Your task to perform on an android device: Add acer nitro to the cart on bestbuy.com, then select checkout. Image 0: 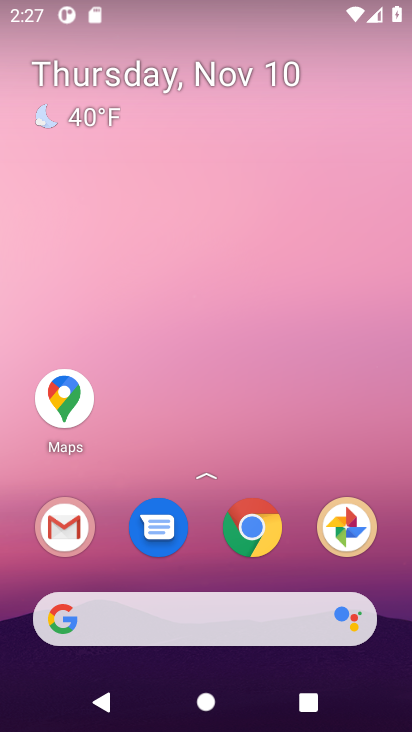
Step 0: drag from (146, 572) to (196, 92)
Your task to perform on an android device: Add acer nitro to the cart on bestbuy.com, then select checkout. Image 1: 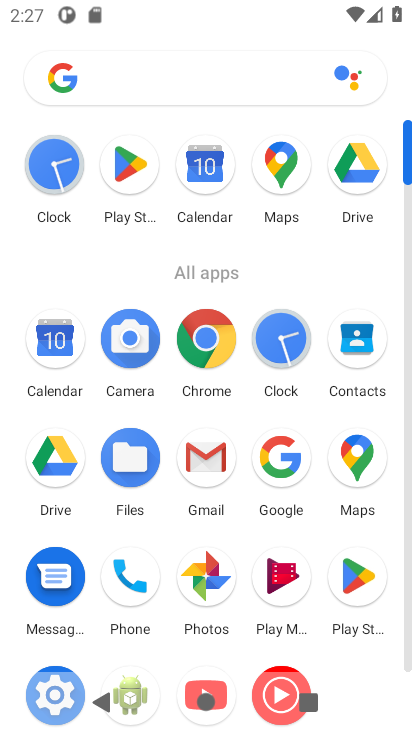
Step 1: click (208, 353)
Your task to perform on an android device: Add acer nitro to the cart on bestbuy.com, then select checkout. Image 2: 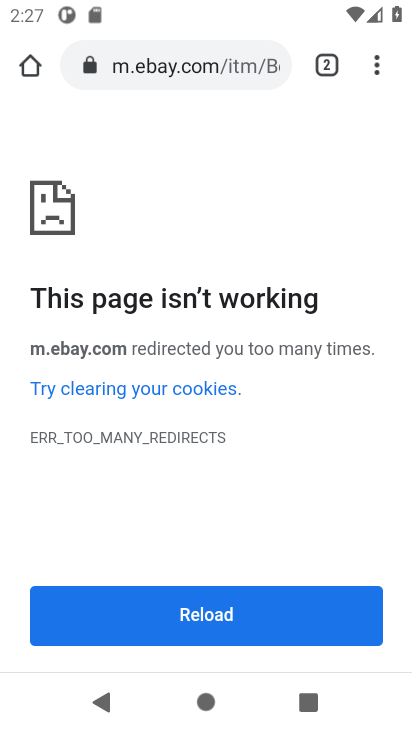
Step 2: click (158, 71)
Your task to perform on an android device: Add acer nitro to the cart on bestbuy.com, then select checkout. Image 3: 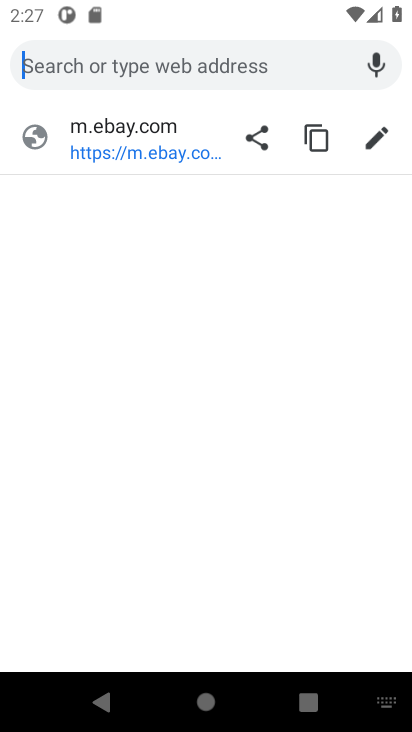
Step 3: type "bestbuy.com"
Your task to perform on an android device: Add acer nitro to the cart on bestbuy.com, then select checkout. Image 4: 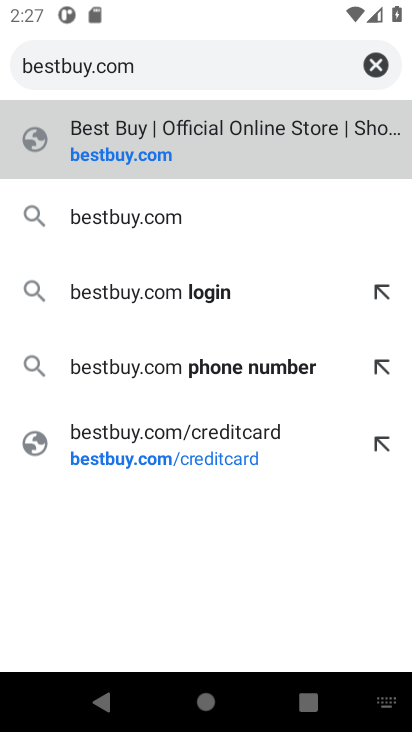
Step 4: press enter
Your task to perform on an android device: Add acer nitro to the cart on bestbuy.com, then select checkout. Image 5: 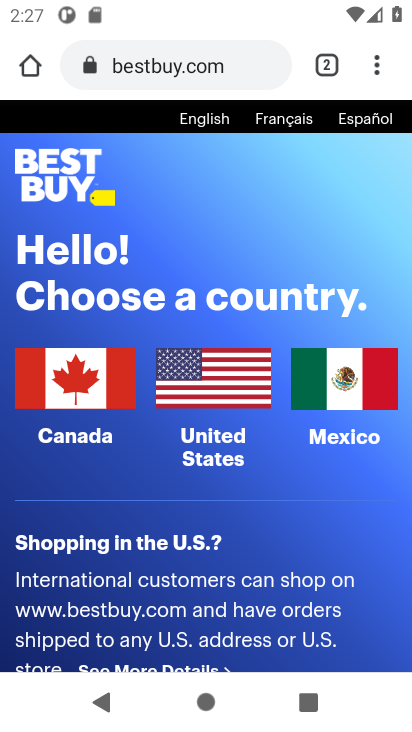
Step 5: click (67, 388)
Your task to perform on an android device: Add acer nitro to the cart on bestbuy.com, then select checkout. Image 6: 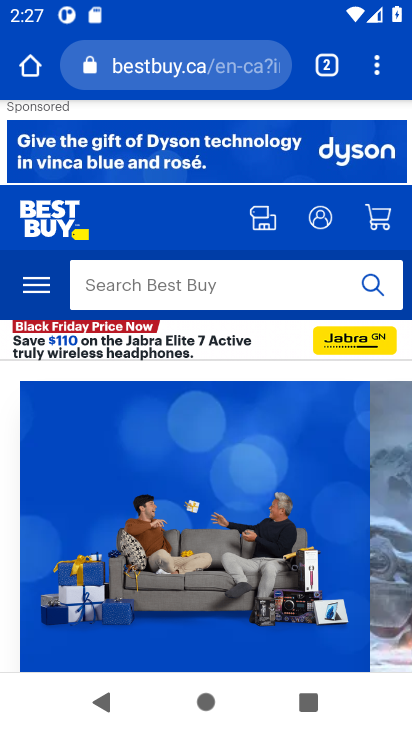
Step 6: click (205, 287)
Your task to perform on an android device: Add acer nitro to the cart on bestbuy.com, then select checkout. Image 7: 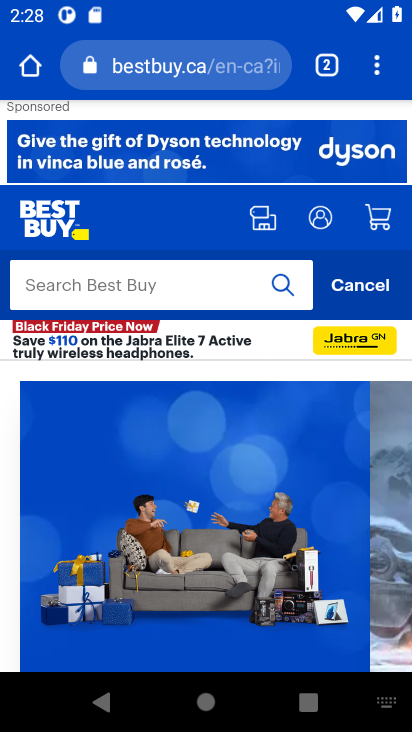
Step 7: type "bestbuy.com"
Your task to perform on an android device: Add acer nitro to the cart on bestbuy.com, then select checkout. Image 8: 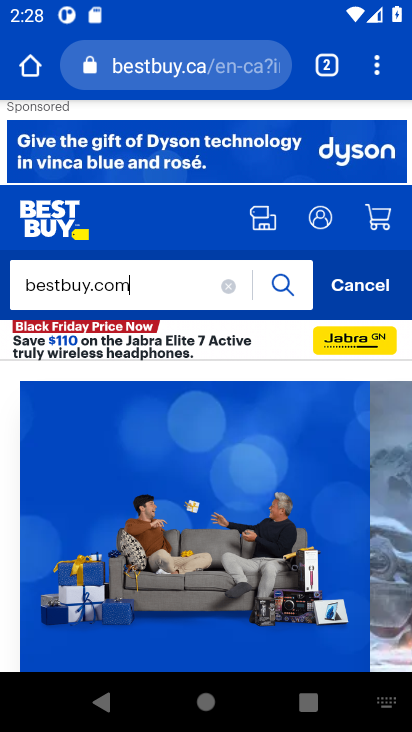
Step 8: press enter
Your task to perform on an android device: Add acer nitro to the cart on bestbuy.com, then select checkout. Image 9: 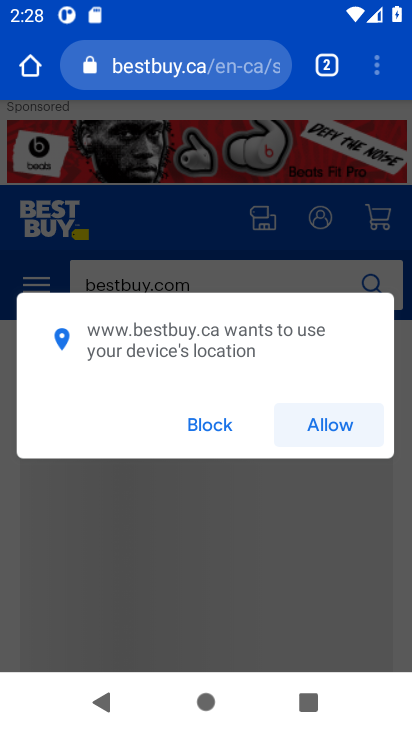
Step 9: click (334, 429)
Your task to perform on an android device: Add acer nitro to the cart on bestbuy.com, then select checkout. Image 10: 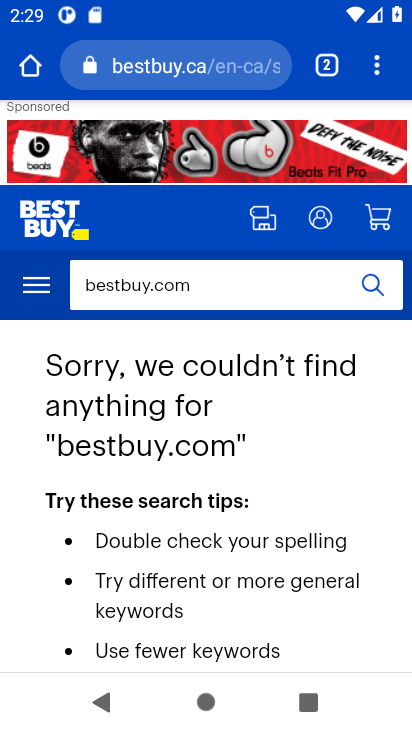
Step 10: click (215, 290)
Your task to perform on an android device: Add acer nitro to the cart on bestbuy.com, then select checkout. Image 11: 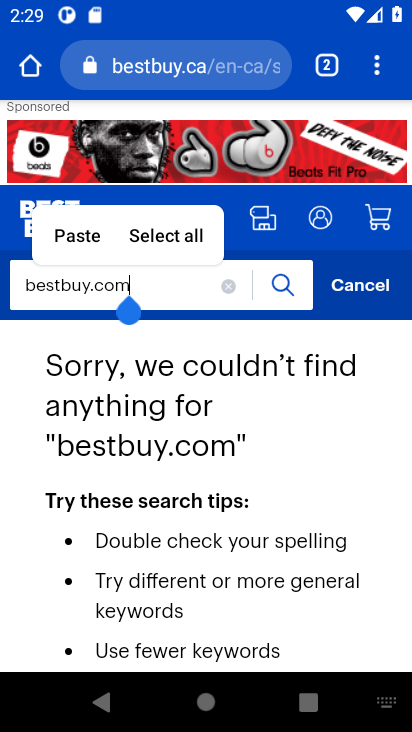
Step 11: click (230, 291)
Your task to perform on an android device: Add acer nitro to the cart on bestbuy.com, then select checkout. Image 12: 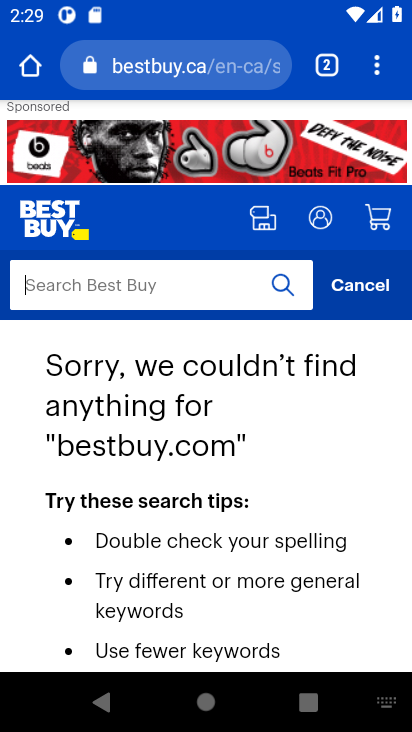
Step 12: type "acer nitro"
Your task to perform on an android device: Add acer nitro to the cart on bestbuy.com, then select checkout. Image 13: 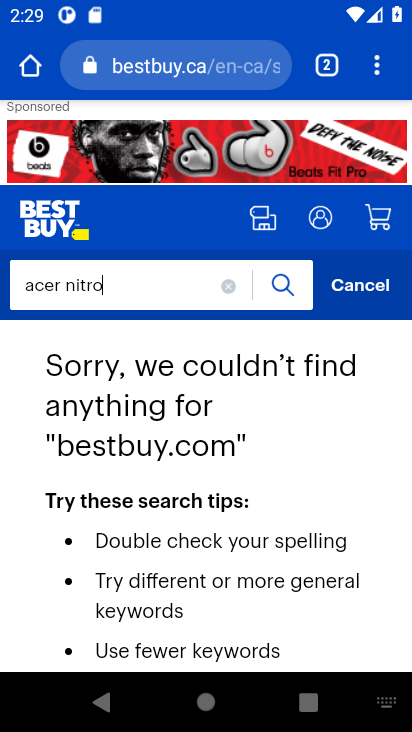
Step 13: press enter
Your task to perform on an android device: Add acer nitro to the cart on bestbuy.com, then select checkout. Image 14: 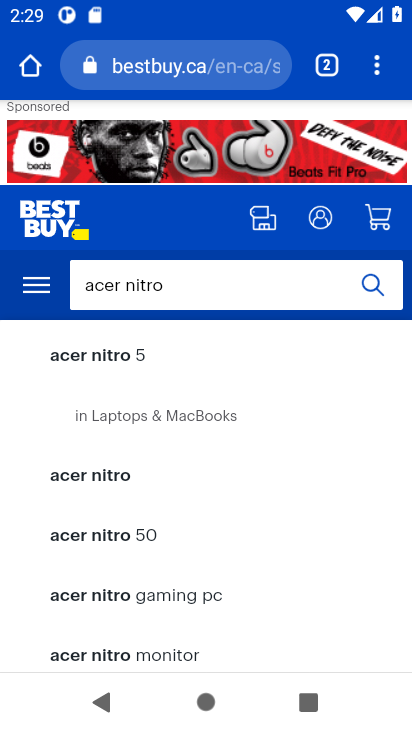
Step 14: click (124, 479)
Your task to perform on an android device: Add acer nitro to the cart on bestbuy.com, then select checkout. Image 15: 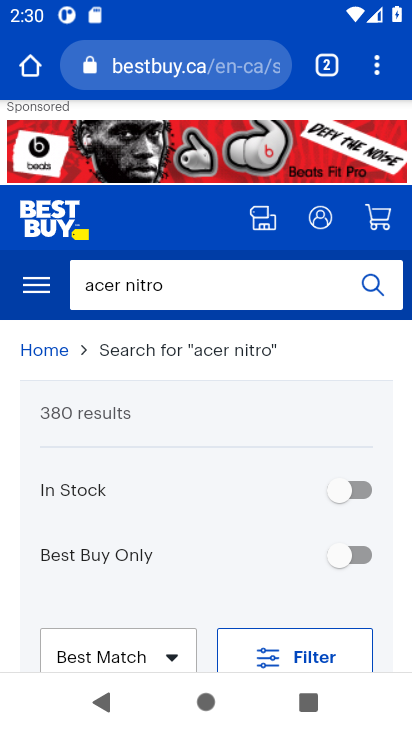
Step 15: drag from (124, 475) to (179, 175)
Your task to perform on an android device: Add acer nitro to the cart on bestbuy.com, then select checkout. Image 16: 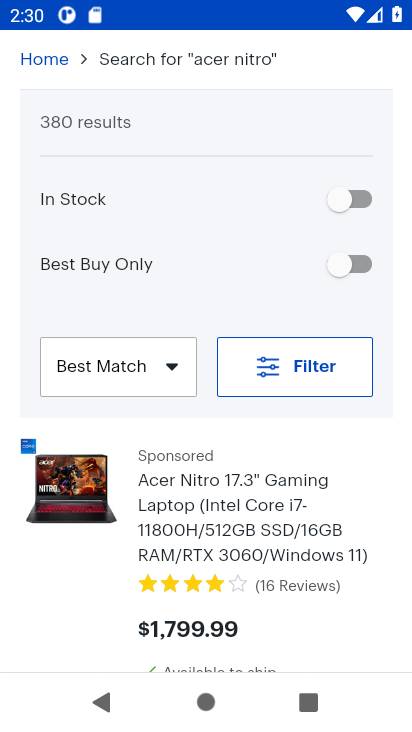
Step 16: click (220, 519)
Your task to perform on an android device: Add acer nitro to the cart on bestbuy.com, then select checkout. Image 17: 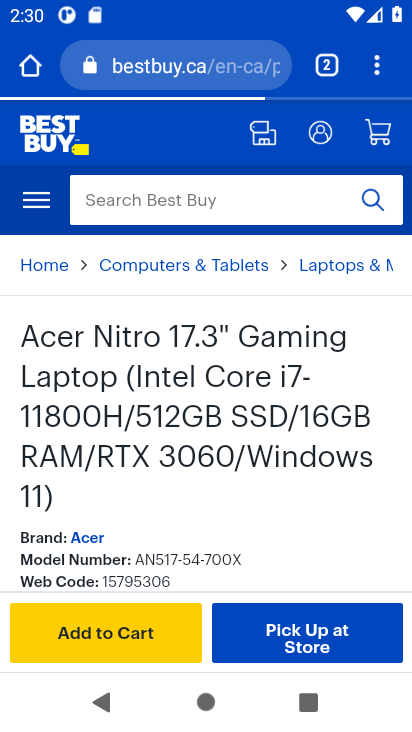
Step 17: click (124, 638)
Your task to perform on an android device: Add acer nitro to the cart on bestbuy.com, then select checkout. Image 18: 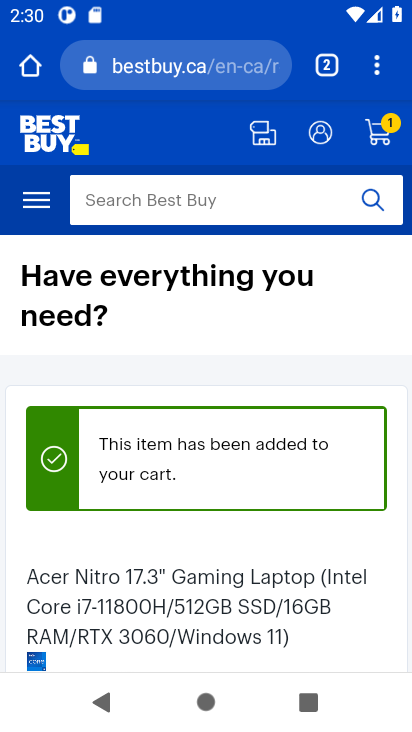
Step 18: drag from (197, 569) to (232, 312)
Your task to perform on an android device: Add acer nitro to the cart on bestbuy.com, then select checkout. Image 19: 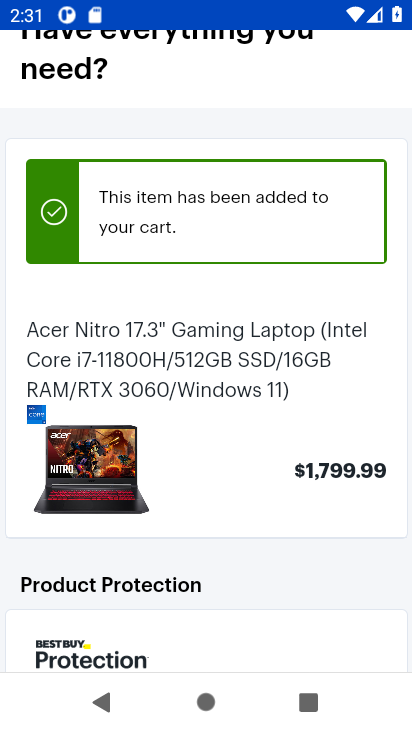
Step 19: drag from (235, 321) to (242, 541)
Your task to perform on an android device: Add acer nitro to the cart on bestbuy.com, then select checkout. Image 20: 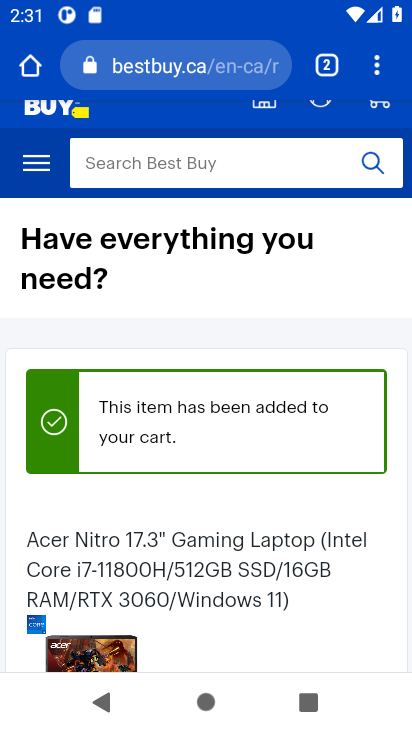
Step 20: drag from (244, 540) to (284, 380)
Your task to perform on an android device: Add acer nitro to the cart on bestbuy.com, then select checkout. Image 21: 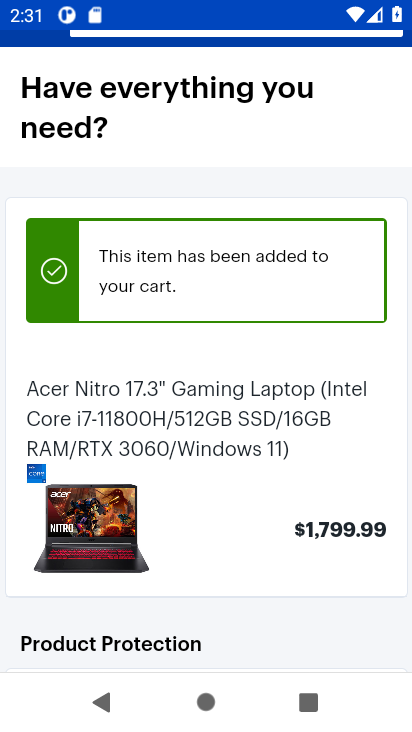
Step 21: drag from (286, 384) to (287, 619)
Your task to perform on an android device: Add acer nitro to the cart on bestbuy.com, then select checkout. Image 22: 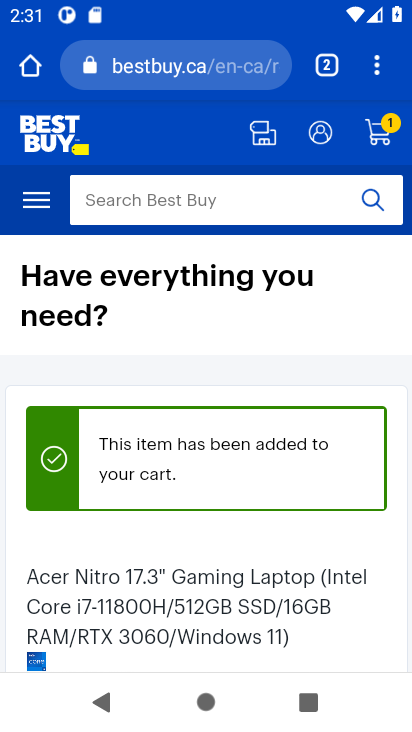
Step 22: click (383, 127)
Your task to perform on an android device: Add acer nitro to the cart on bestbuy.com, then select checkout. Image 23: 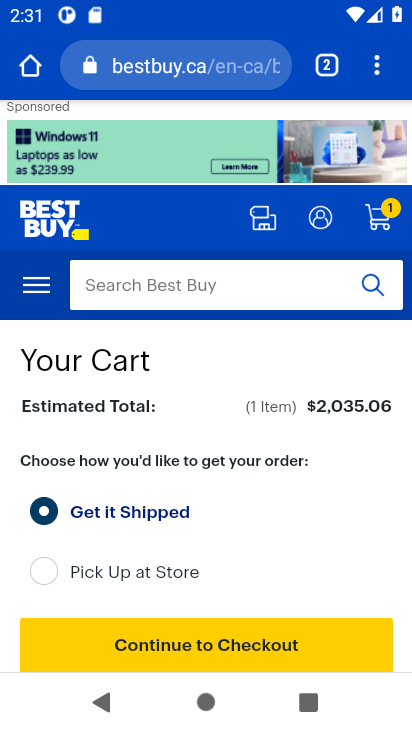
Step 23: click (201, 644)
Your task to perform on an android device: Add acer nitro to the cart on bestbuy.com, then select checkout. Image 24: 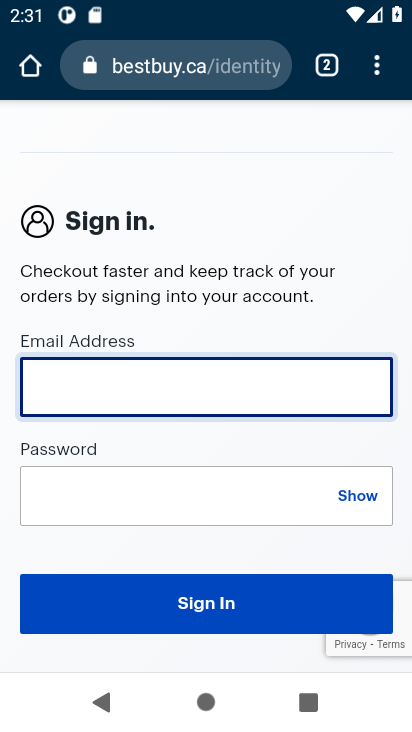
Step 24: task complete